Your task to perform on an android device: Go to calendar. Show me events next week Image 0: 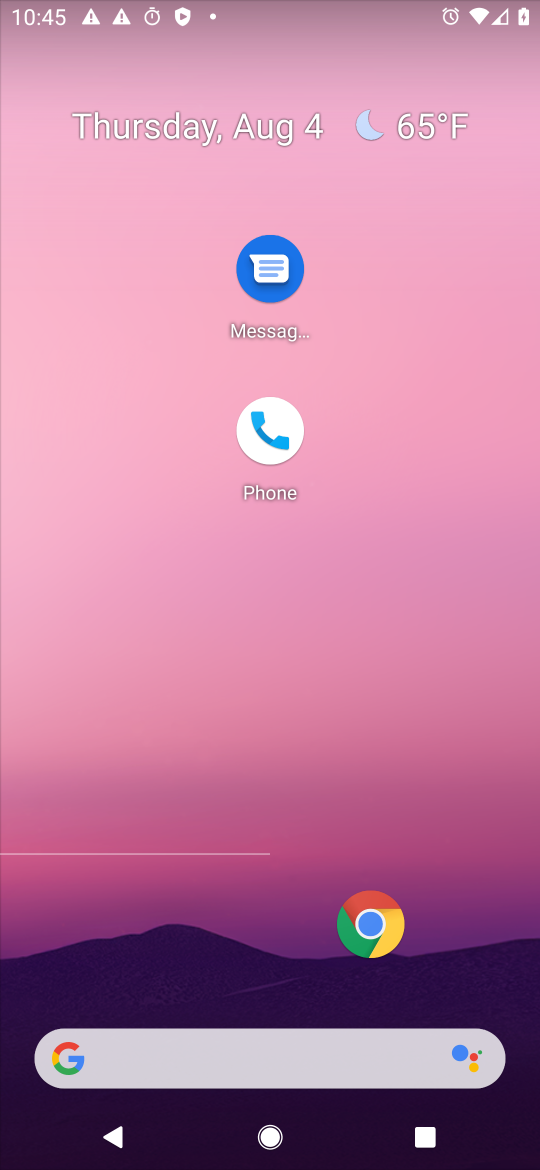
Step 0: drag from (473, 61) to (510, 151)
Your task to perform on an android device: Go to calendar. Show me events next week Image 1: 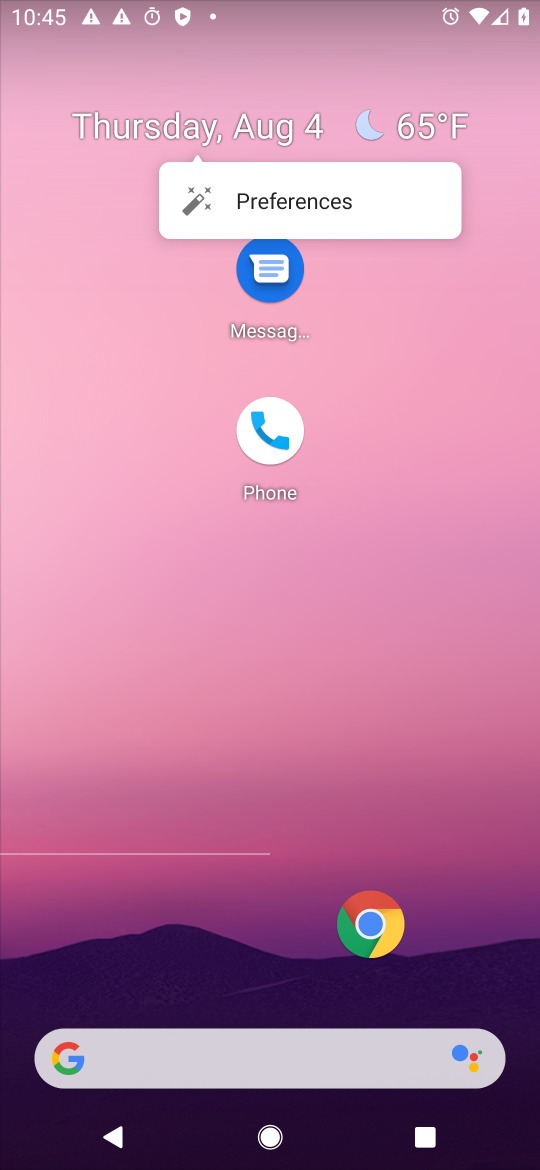
Step 1: drag from (275, 708) to (310, 273)
Your task to perform on an android device: Go to calendar. Show me events next week Image 2: 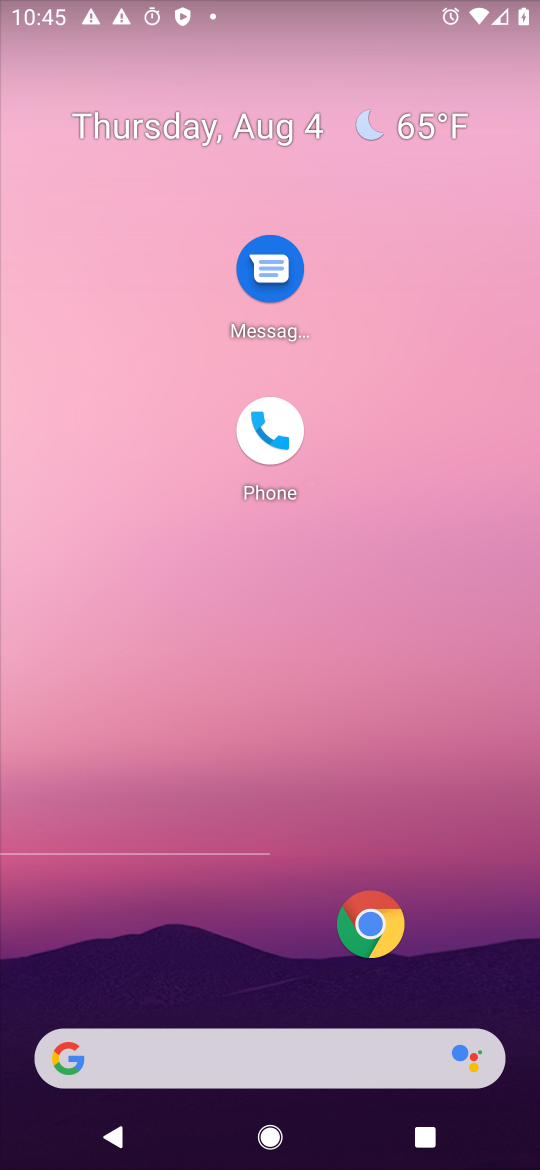
Step 2: drag from (287, 853) to (408, 366)
Your task to perform on an android device: Go to calendar. Show me events next week Image 3: 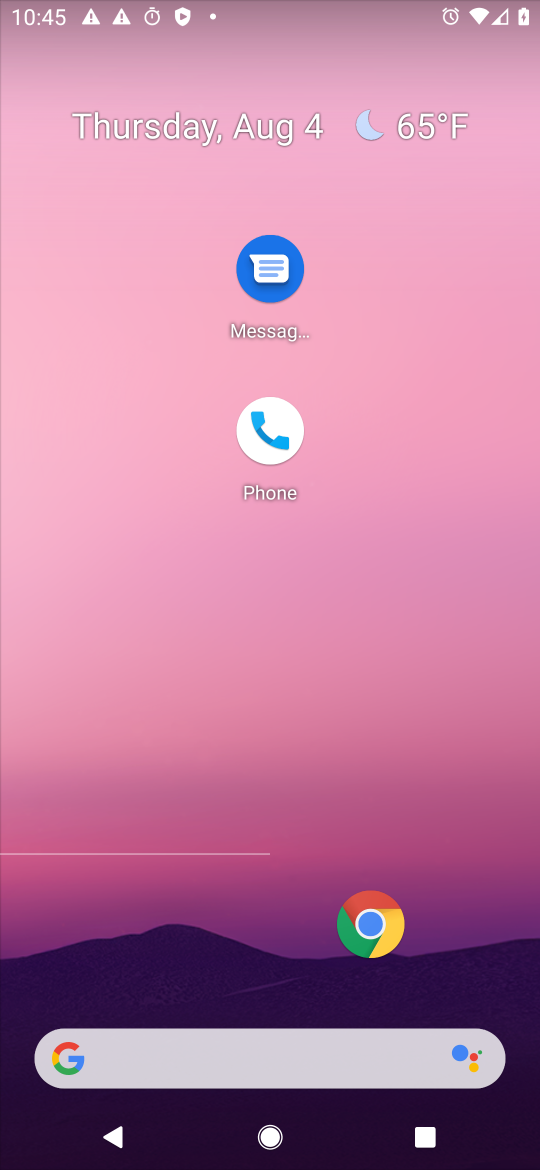
Step 3: drag from (320, 916) to (387, 150)
Your task to perform on an android device: Go to calendar. Show me events next week Image 4: 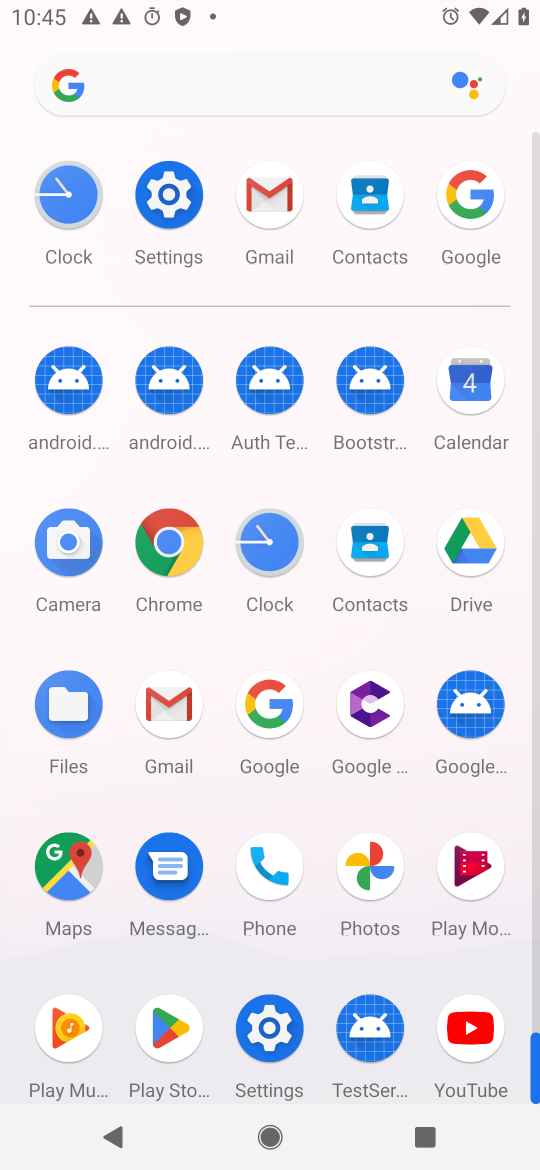
Step 4: click (470, 378)
Your task to perform on an android device: Go to calendar. Show me events next week Image 5: 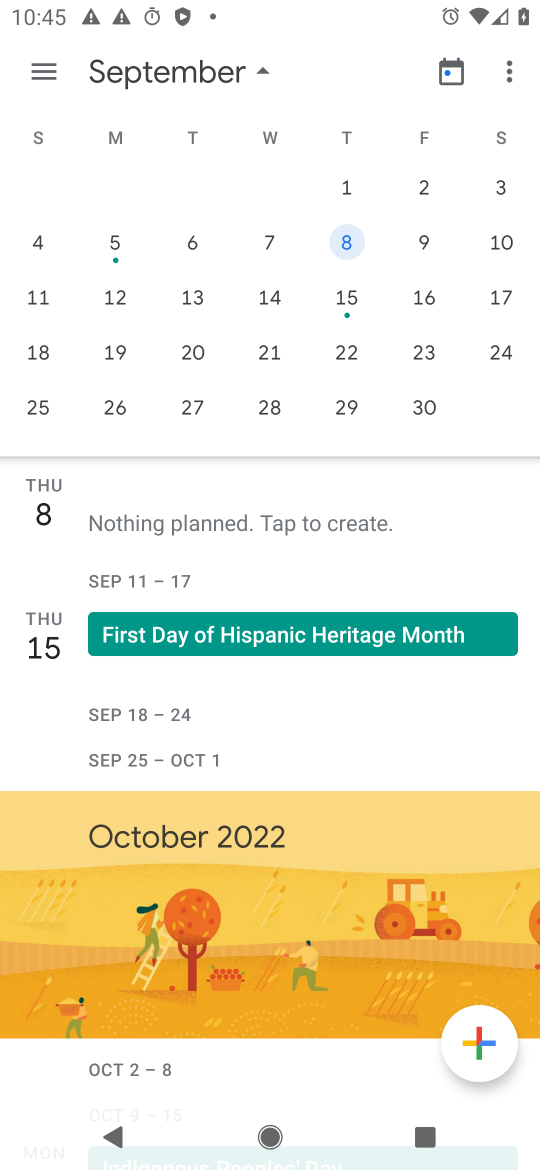
Step 5: drag from (458, 373) to (481, 95)
Your task to perform on an android device: Go to calendar. Show me events next week Image 6: 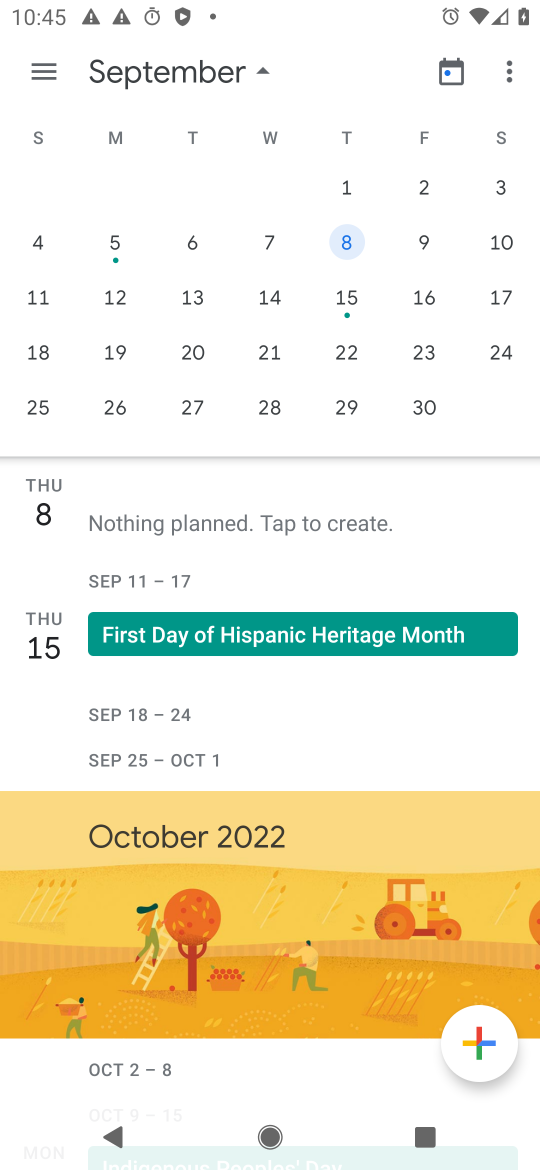
Step 6: drag from (267, 489) to (371, 134)
Your task to perform on an android device: Go to calendar. Show me events next week Image 7: 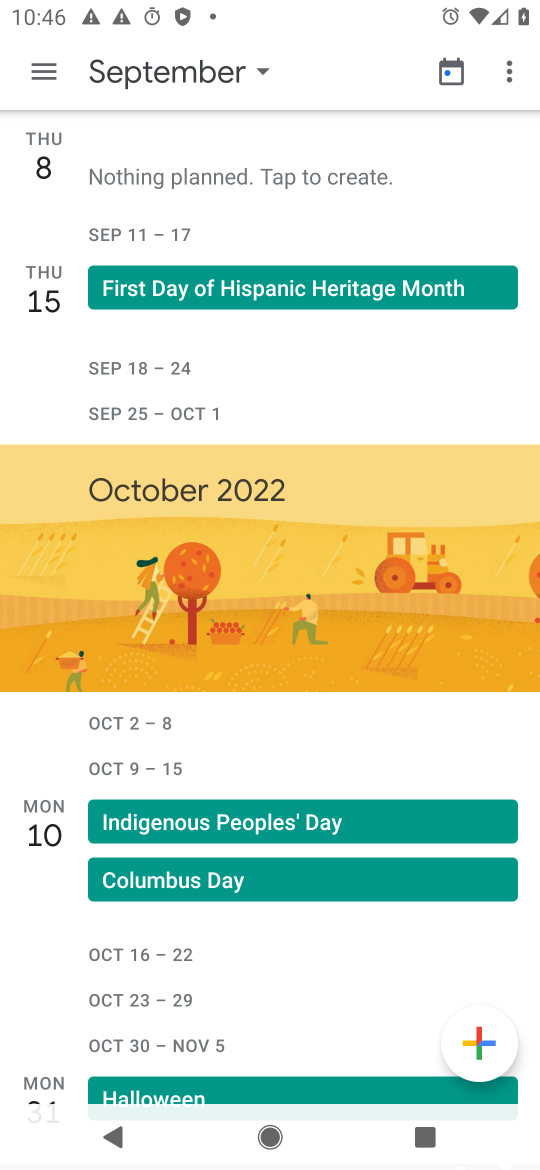
Step 7: click (221, 72)
Your task to perform on an android device: Go to calendar. Show me events next week Image 8: 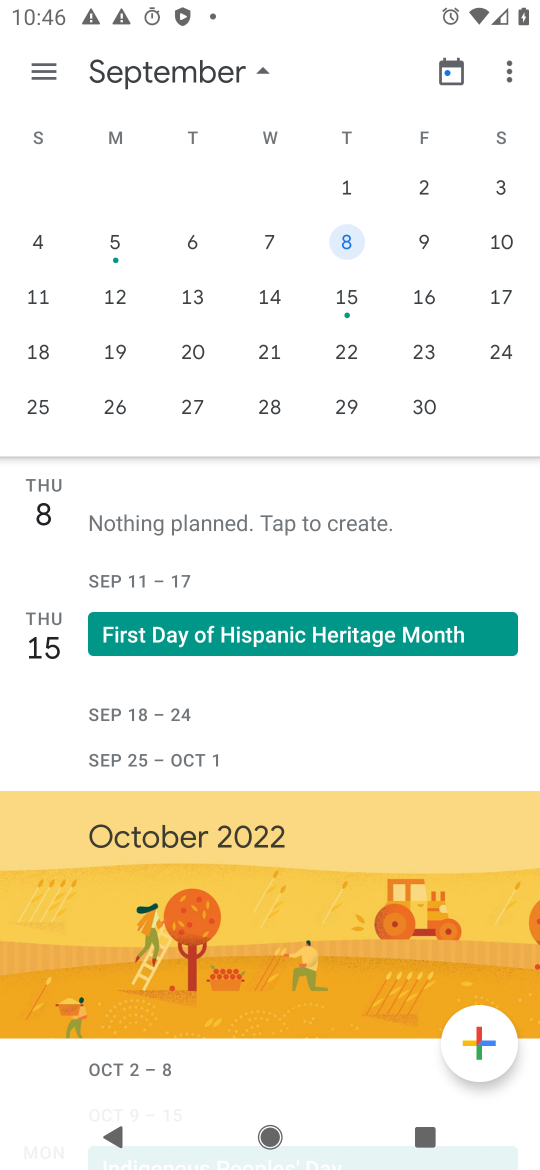
Step 8: click (457, 81)
Your task to perform on an android device: Go to calendar. Show me events next week Image 9: 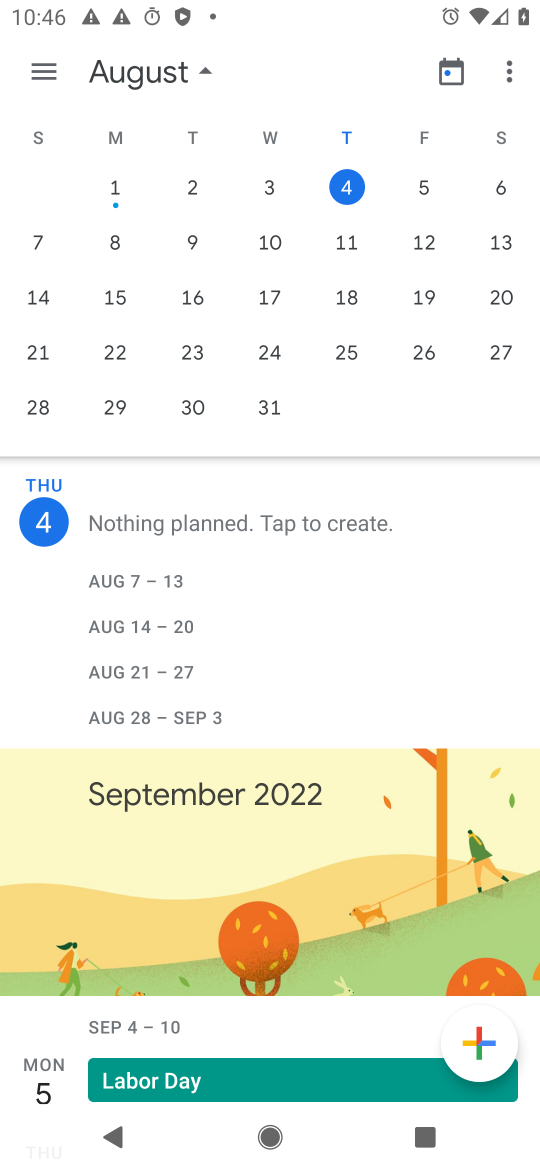
Step 9: click (424, 241)
Your task to perform on an android device: Go to calendar. Show me events next week Image 10: 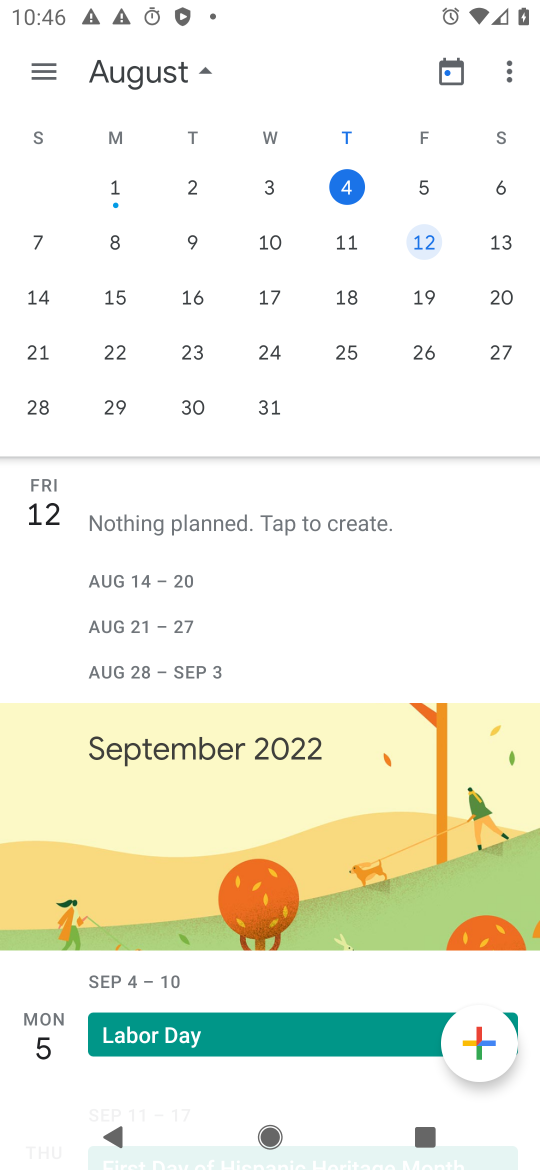
Step 10: task complete